Your task to perform on an android device: turn off picture-in-picture Image 0: 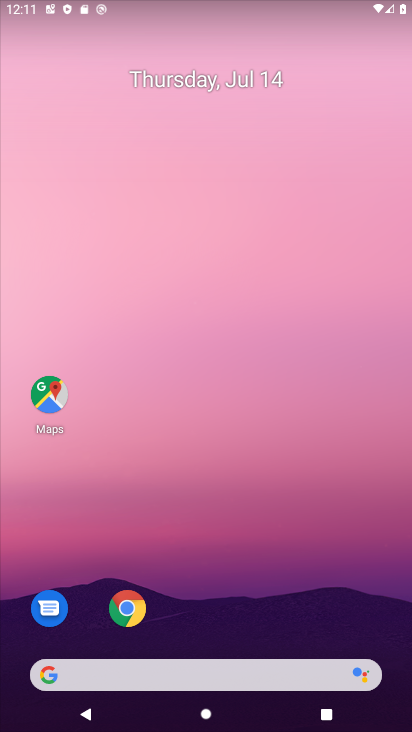
Step 0: click (128, 616)
Your task to perform on an android device: turn off picture-in-picture Image 1: 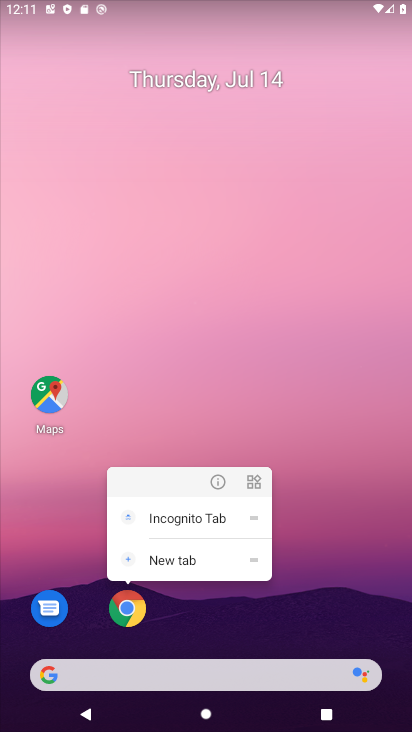
Step 1: click (220, 481)
Your task to perform on an android device: turn off picture-in-picture Image 2: 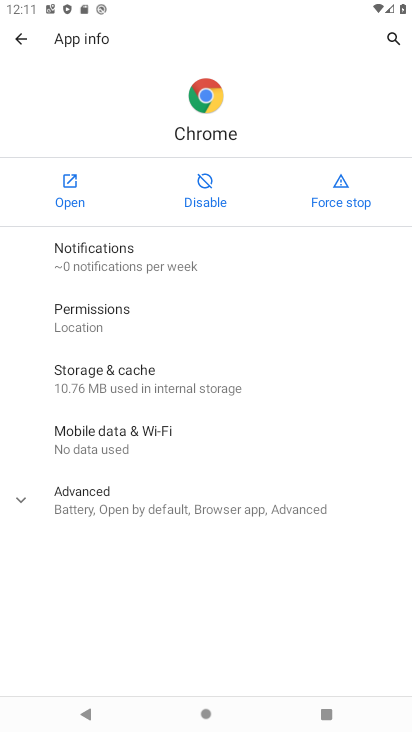
Step 2: click (231, 511)
Your task to perform on an android device: turn off picture-in-picture Image 3: 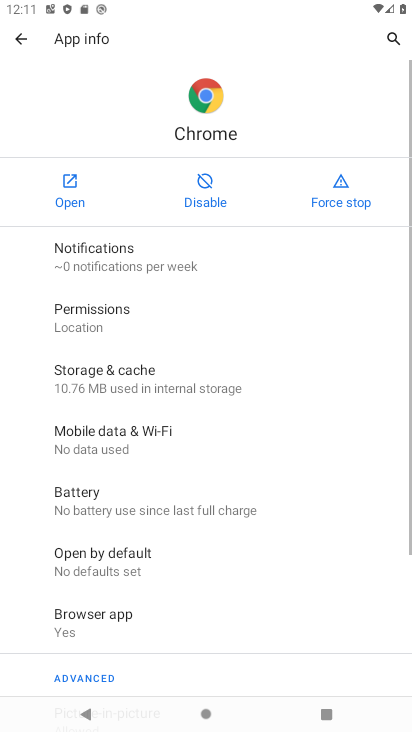
Step 3: drag from (258, 579) to (128, 82)
Your task to perform on an android device: turn off picture-in-picture Image 4: 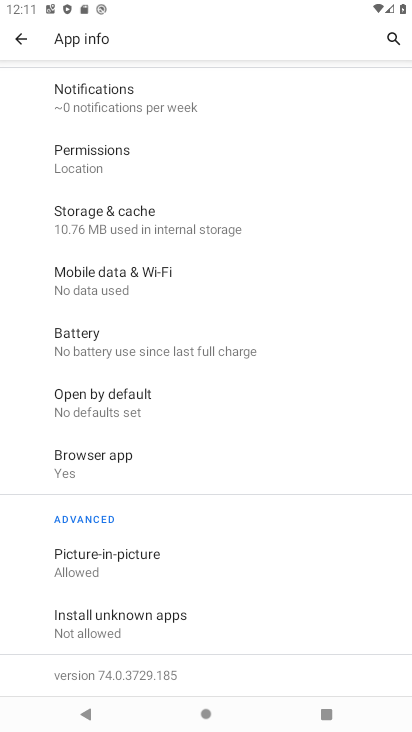
Step 4: drag from (234, 672) to (164, 262)
Your task to perform on an android device: turn off picture-in-picture Image 5: 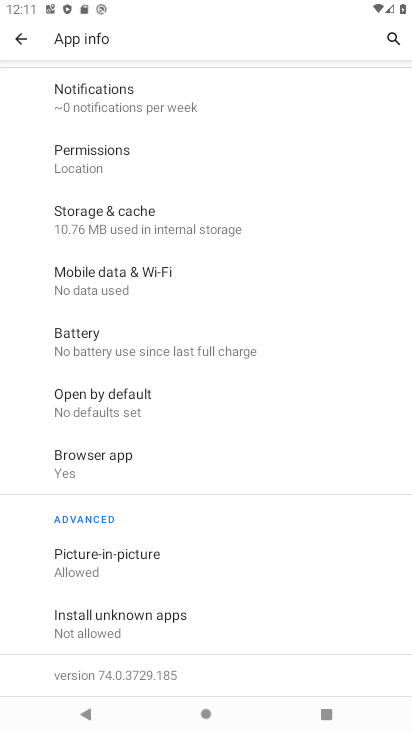
Step 5: click (95, 559)
Your task to perform on an android device: turn off picture-in-picture Image 6: 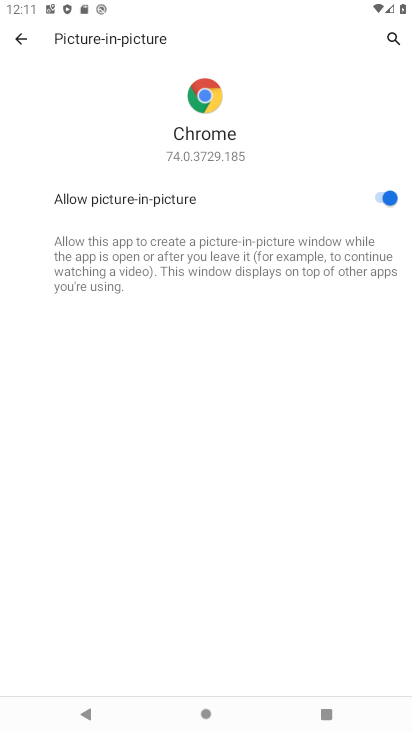
Step 6: click (384, 196)
Your task to perform on an android device: turn off picture-in-picture Image 7: 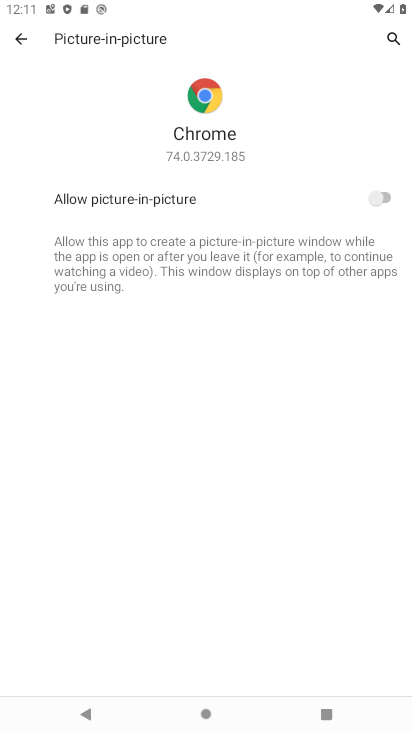
Step 7: task complete